Your task to perform on an android device: change alarm snooze length Image 0: 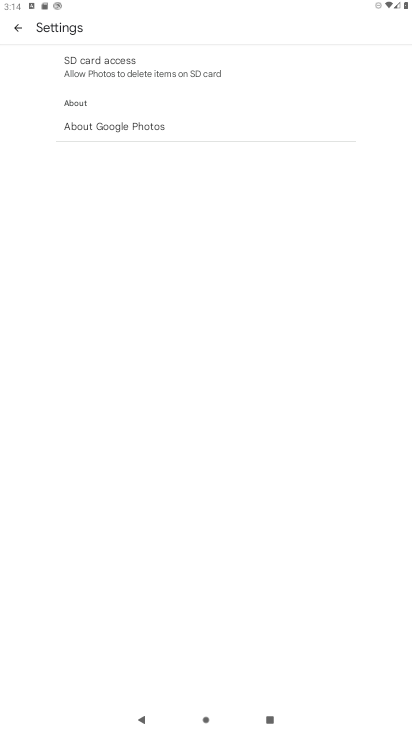
Step 0: press home button
Your task to perform on an android device: change alarm snooze length Image 1: 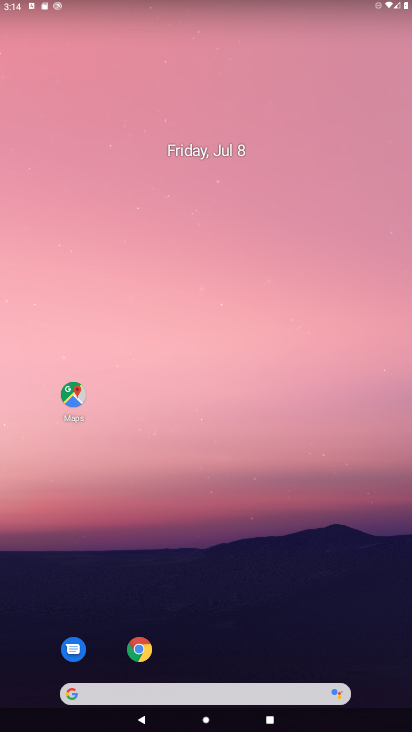
Step 1: drag from (338, 662) to (276, 70)
Your task to perform on an android device: change alarm snooze length Image 2: 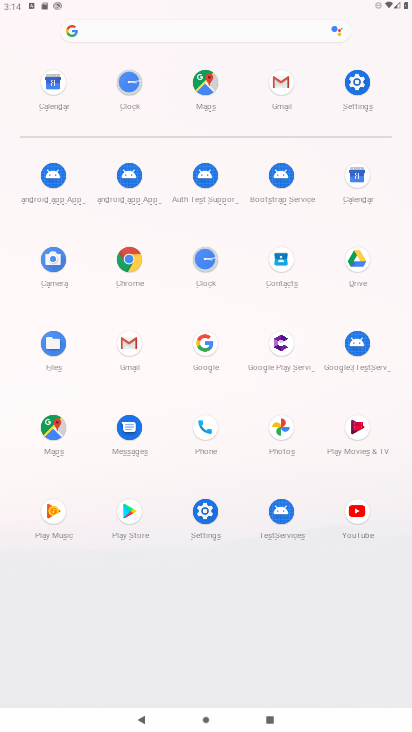
Step 2: click (200, 260)
Your task to perform on an android device: change alarm snooze length Image 3: 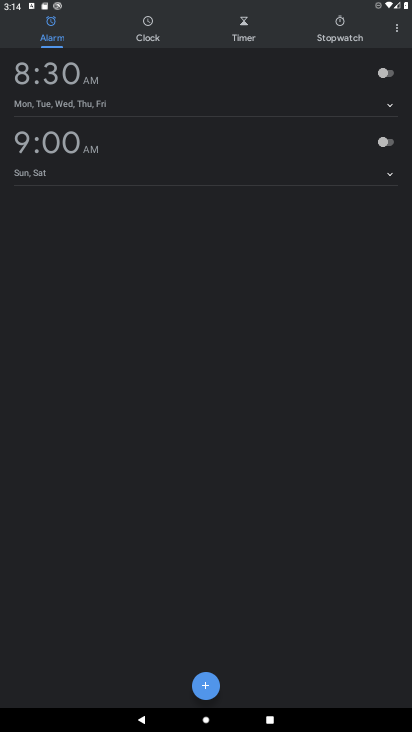
Step 3: click (400, 33)
Your task to perform on an android device: change alarm snooze length Image 4: 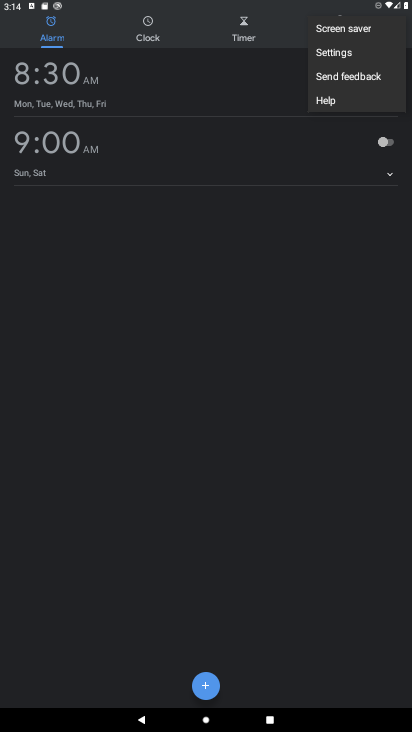
Step 4: click (328, 47)
Your task to perform on an android device: change alarm snooze length Image 5: 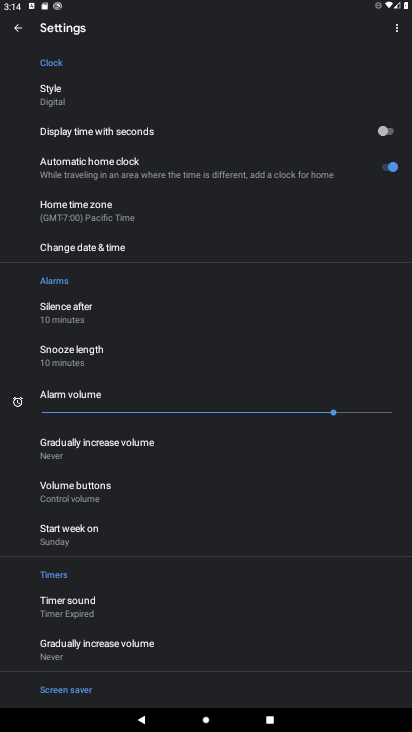
Step 5: click (67, 354)
Your task to perform on an android device: change alarm snooze length Image 6: 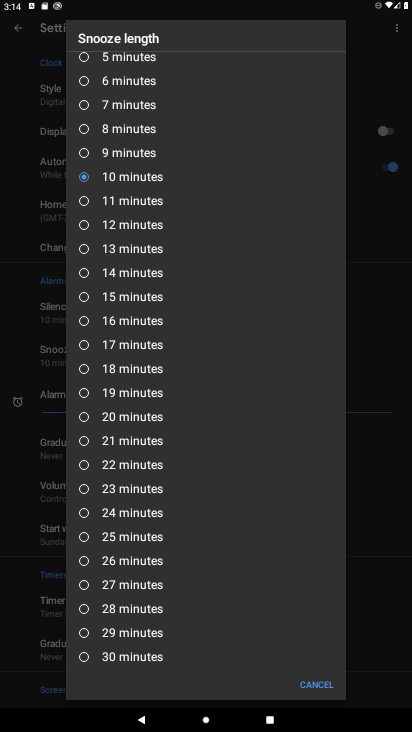
Step 6: click (87, 296)
Your task to perform on an android device: change alarm snooze length Image 7: 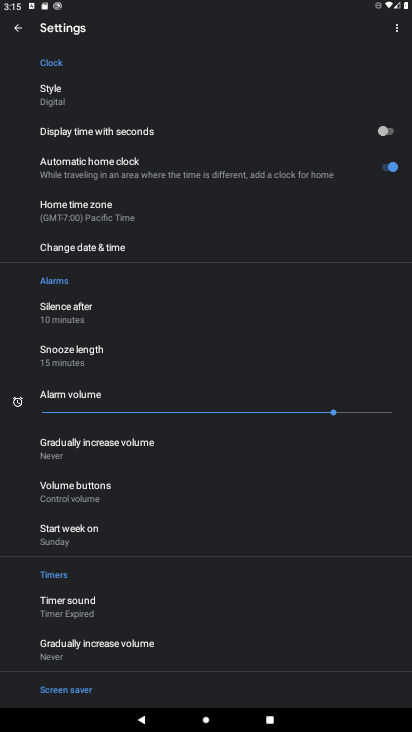
Step 7: task complete